Your task to perform on an android device: See recent photos Image 0: 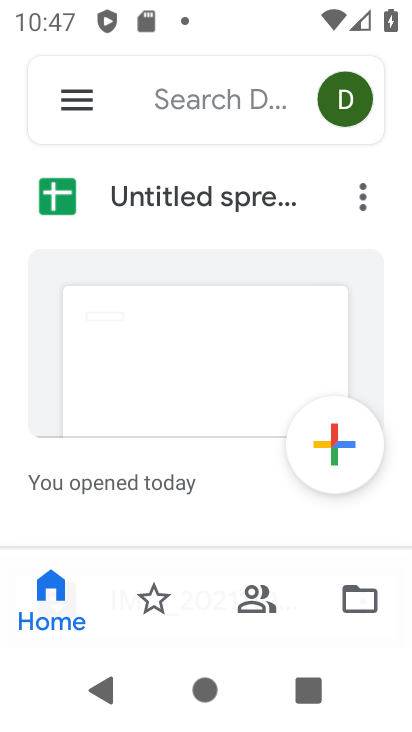
Step 0: press home button
Your task to perform on an android device: See recent photos Image 1: 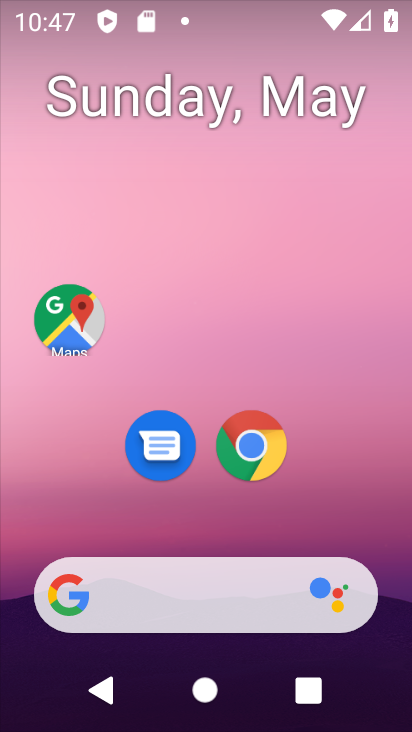
Step 1: drag from (182, 540) to (198, 224)
Your task to perform on an android device: See recent photos Image 2: 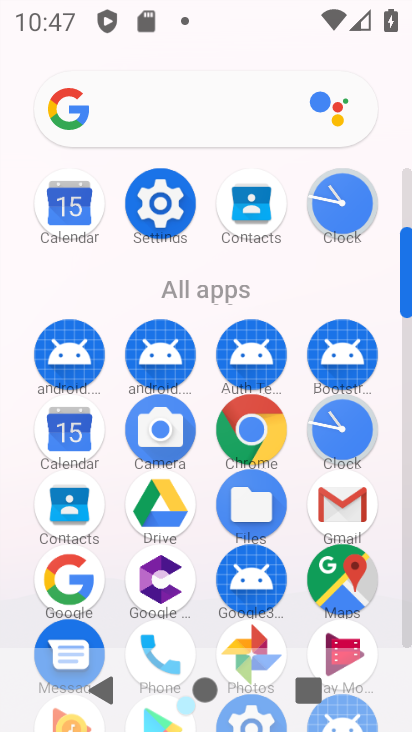
Step 2: drag from (290, 536) to (298, 185)
Your task to perform on an android device: See recent photos Image 3: 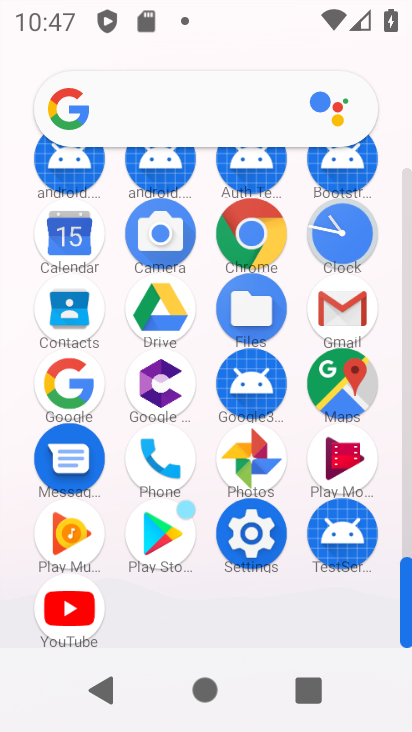
Step 3: click (255, 452)
Your task to perform on an android device: See recent photos Image 4: 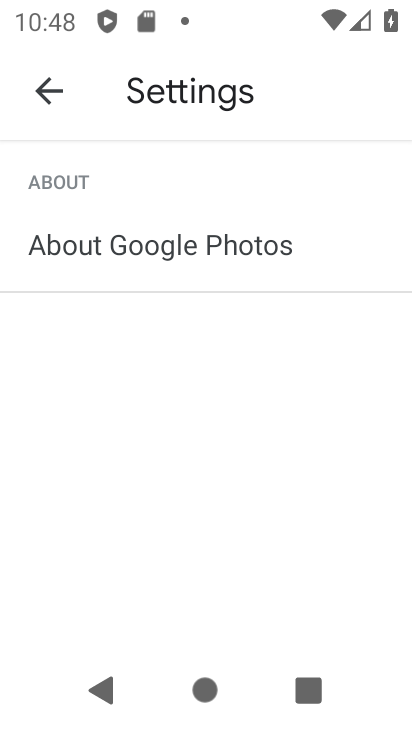
Step 4: click (201, 254)
Your task to perform on an android device: See recent photos Image 5: 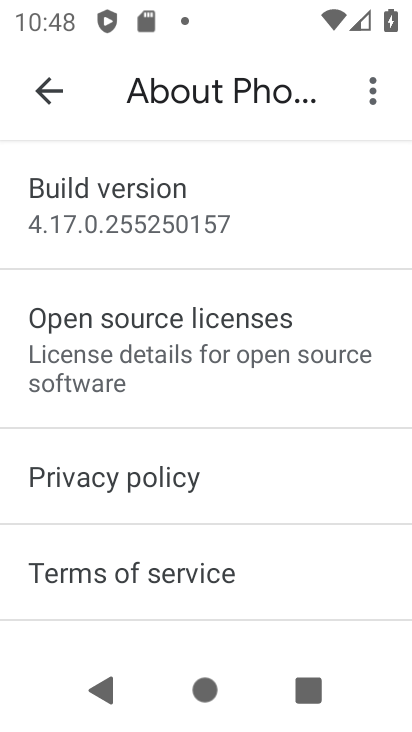
Step 5: click (54, 101)
Your task to perform on an android device: See recent photos Image 6: 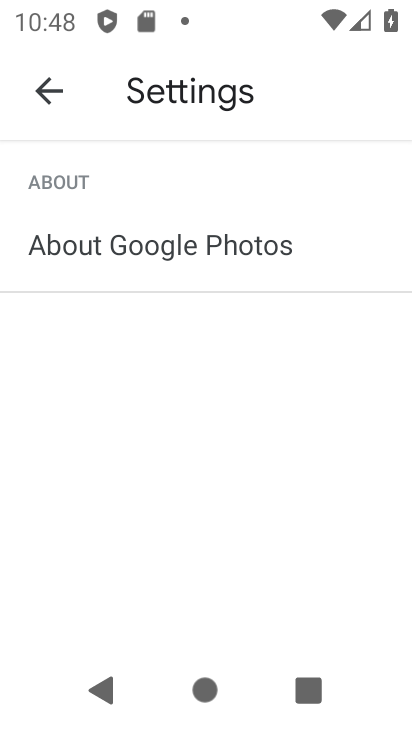
Step 6: click (54, 100)
Your task to perform on an android device: See recent photos Image 7: 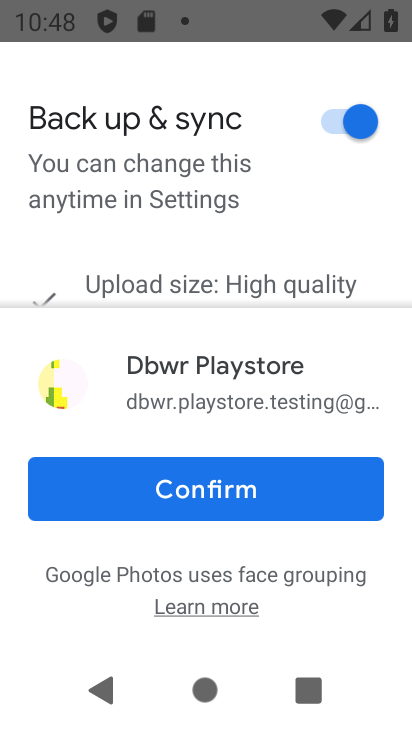
Step 7: click (155, 600)
Your task to perform on an android device: See recent photos Image 8: 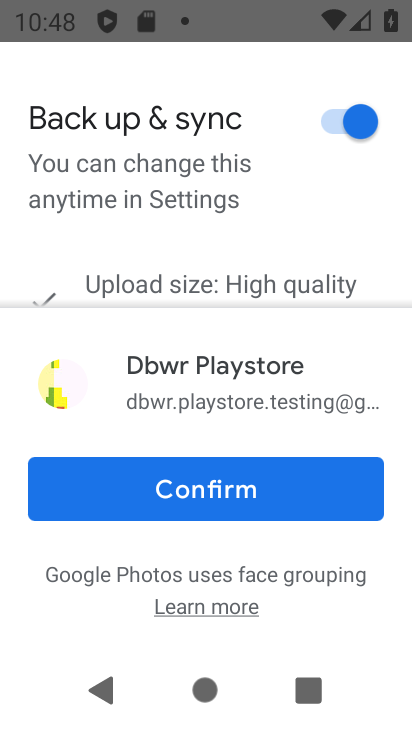
Step 8: click (207, 477)
Your task to perform on an android device: See recent photos Image 9: 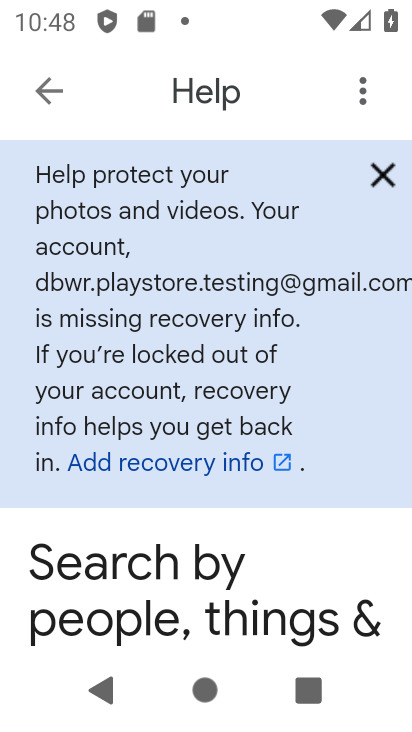
Step 9: click (44, 82)
Your task to perform on an android device: See recent photos Image 10: 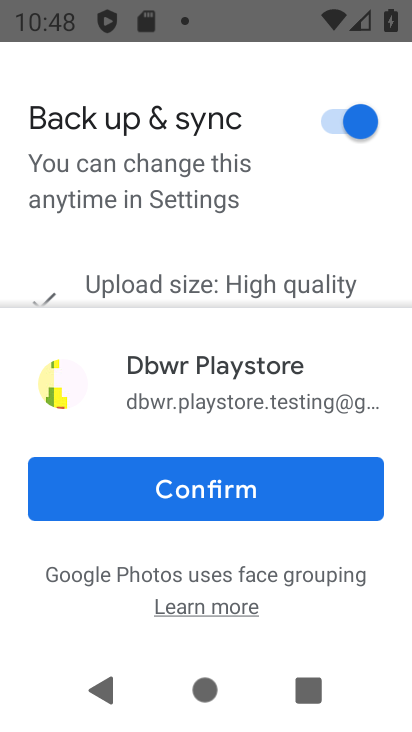
Step 10: click (283, 505)
Your task to perform on an android device: See recent photos Image 11: 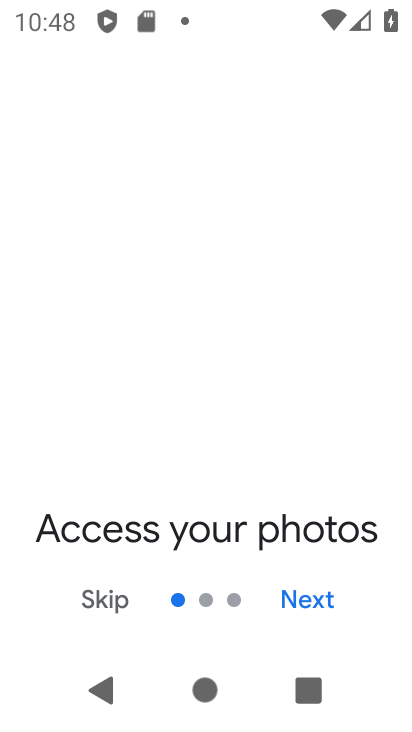
Step 11: click (303, 598)
Your task to perform on an android device: See recent photos Image 12: 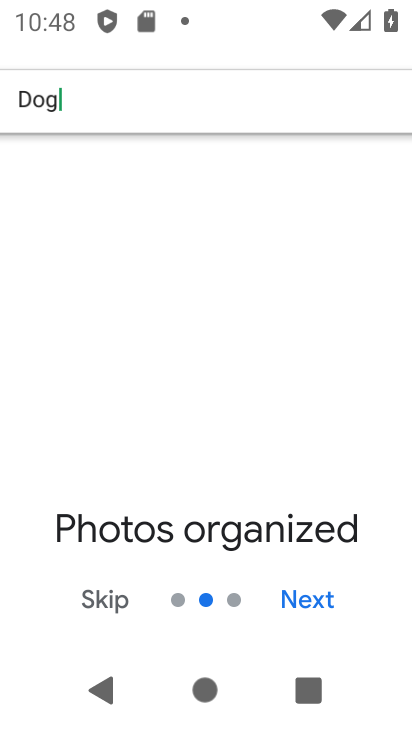
Step 12: click (305, 597)
Your task to perform on an android device: See recent photos Image 13: 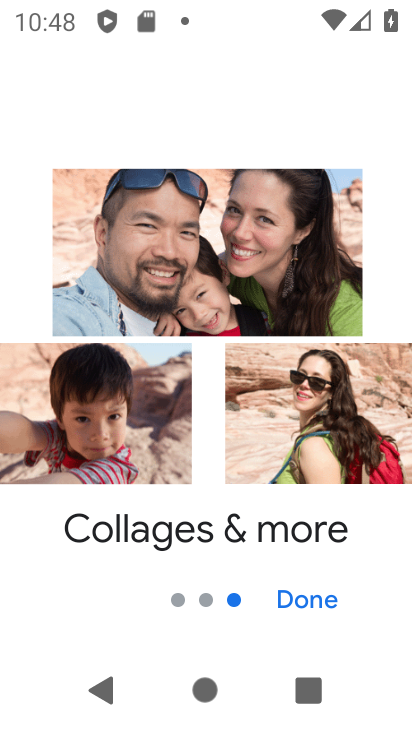
Step 13: click (313, 592)
Your task to perform on an android device: See recent photos Image 14: 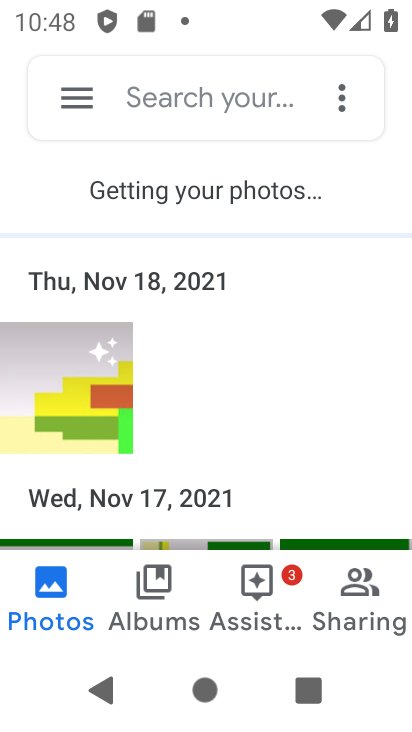
Step 14: task complete